Your task to perform on an android device: Open location settings Image 0: 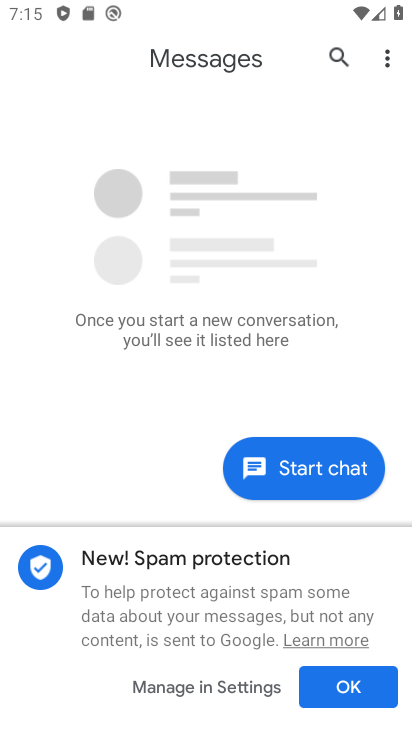
Step 0: press home button
Your task to perform on an android device: Open location settings Image 1: 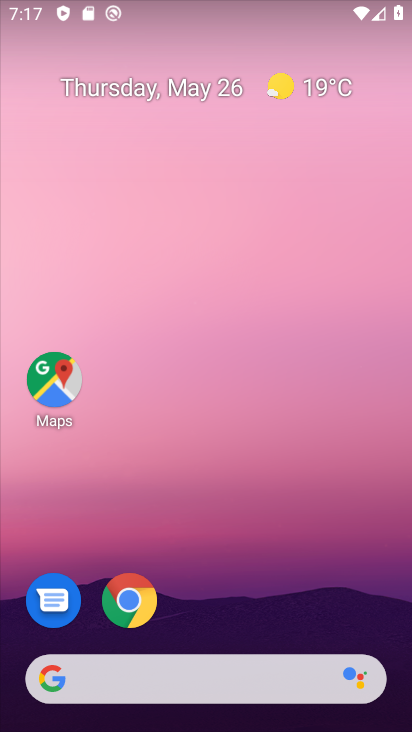
Step 1: drag from (328, 580) to (223, 100)
Your task to perform on an android device: Open location settings Image 2: 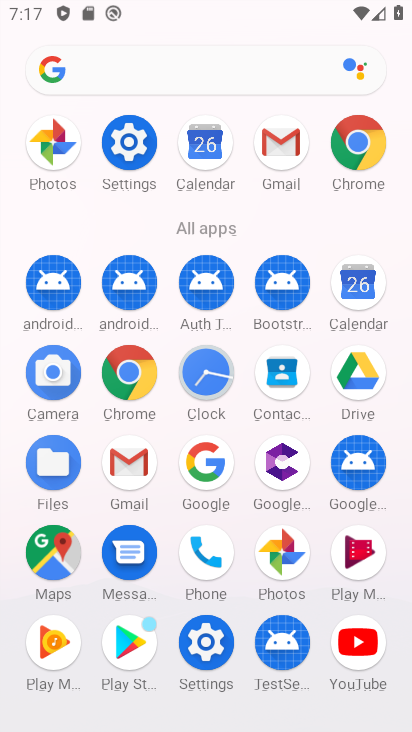
Step 2: click (140, 141)
Your task to perform on an android device: Open location settings Image 3: 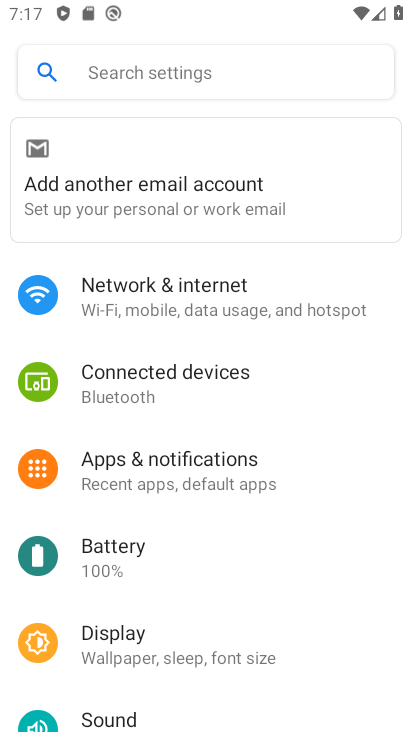
Step 3: click (181, 76)
Your task to perform on an android device: Open location settings Image 4: 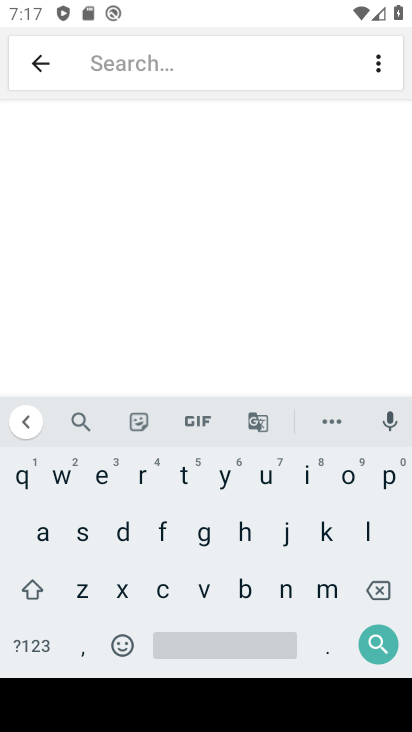
Step 4: click (367, 530)
Your task to perform on an android device: Open location settings Image 5: 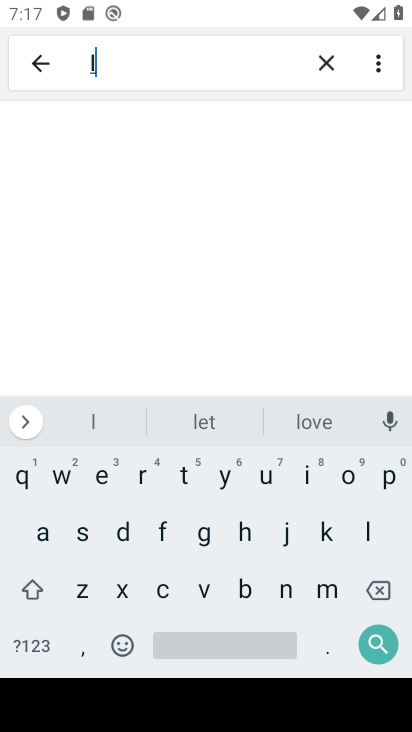
Step 5: click (350, 481)
Your task to perform on an android device: Open location settings Image 6: 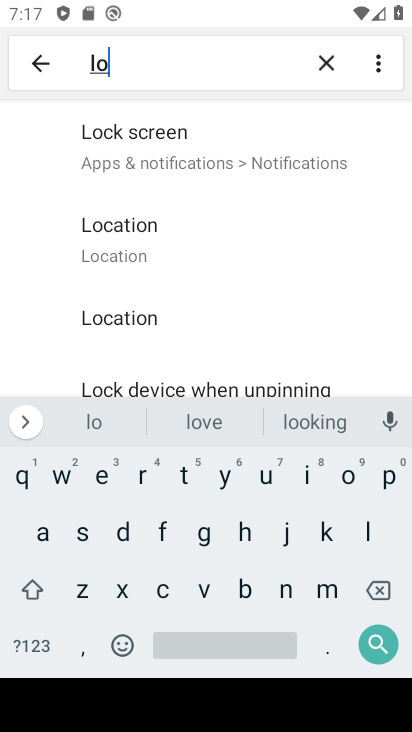
Step 6: click (163, 235)
Your task to perform on an android device: Open location settings Image 7: 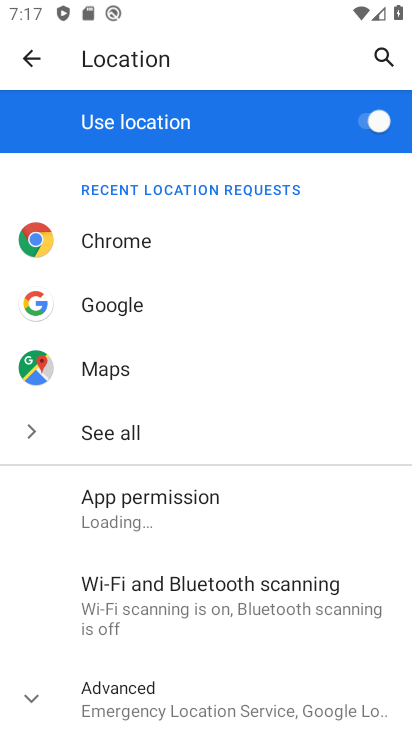
Step 7: task complete